Your task to perform on an android device: toggle wifi Image 0: 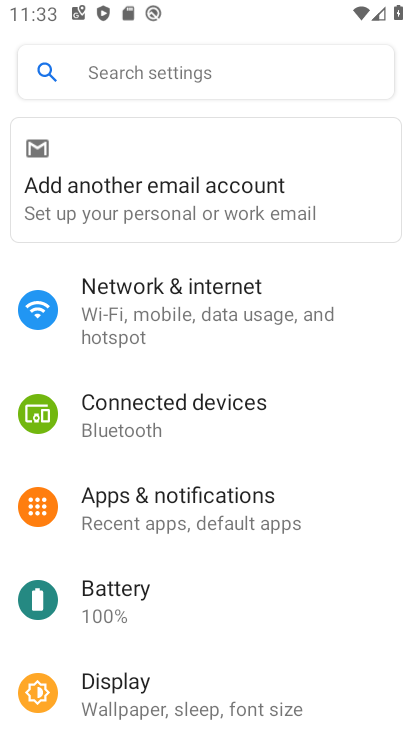
Step 0: click (232, 311)
Your task to perform on an android device: toggle wifi Image 1: 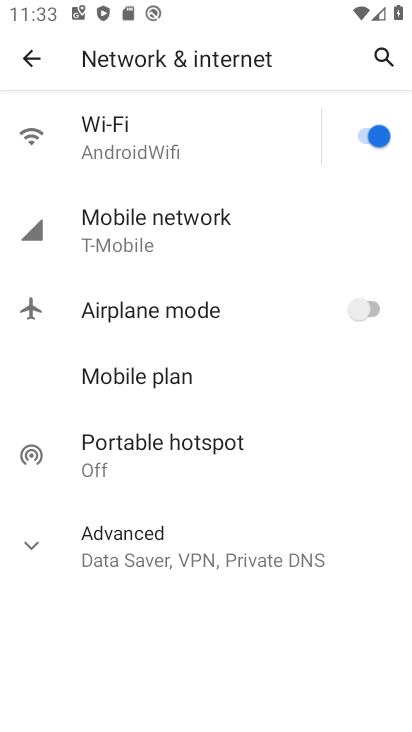
Step 1: click (384, 128)
Your task to perform on an android device: toggle wifi Image 2: 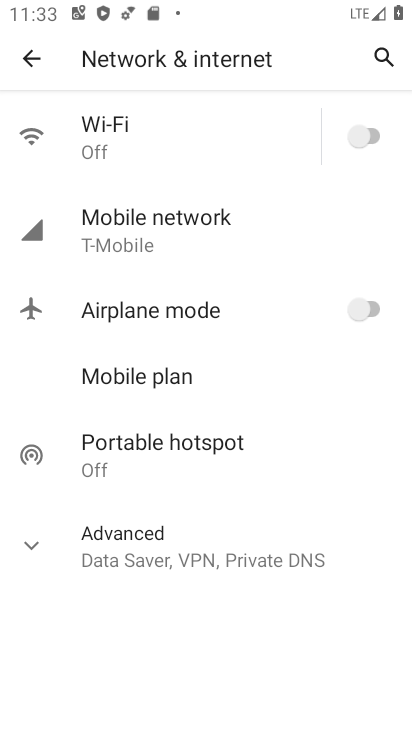
Step 2: click (384, 128)
Your task to perform on an android device: toggle wifi Image 3: 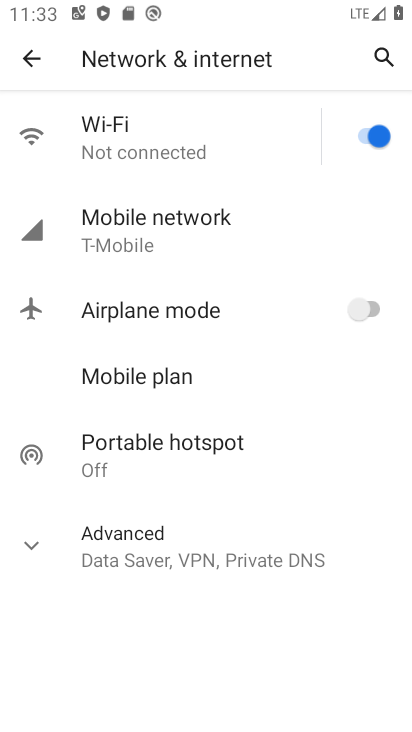
Step 3: click (384, 128)
Your task to perform on an android device: toggle wifi Image 4: 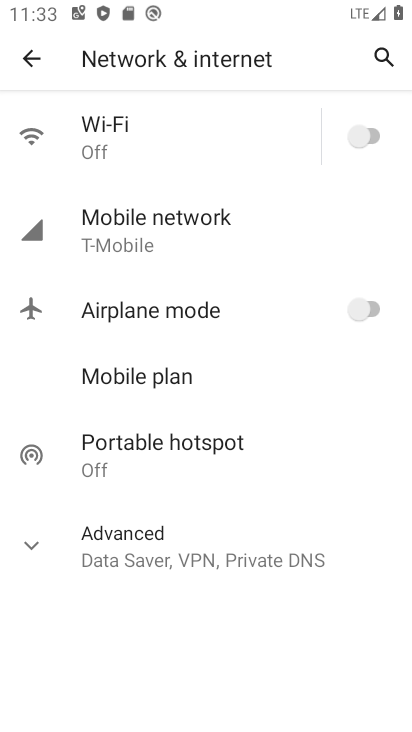
Step 4: click (384, 128)
Your task to perform on an android device: toggle wifi Image 5: 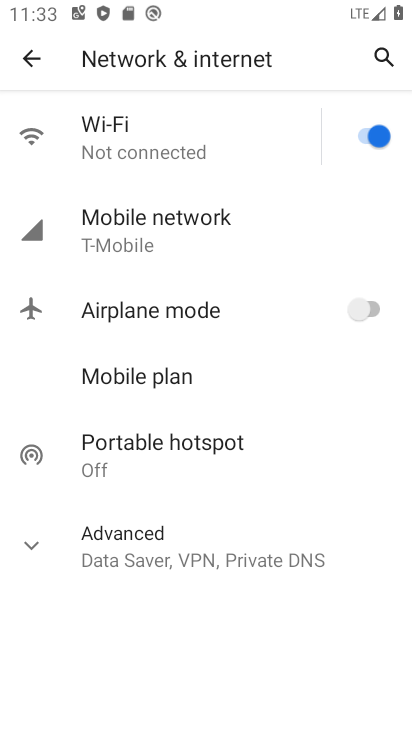
Step 5: task complete